Your task to perform on an android device: toggle priority inbox in the gmail app Image 0: 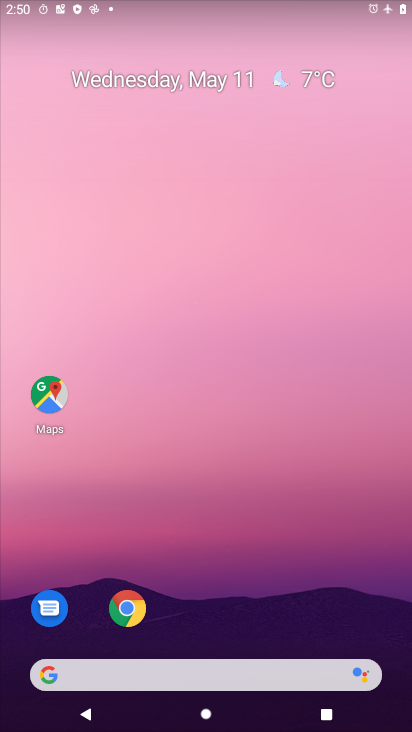
Step 0: drag from (229, 591) to (217, 60)
Your task to perform on an android device: toggle priority inbox in the gmail app Image 1: 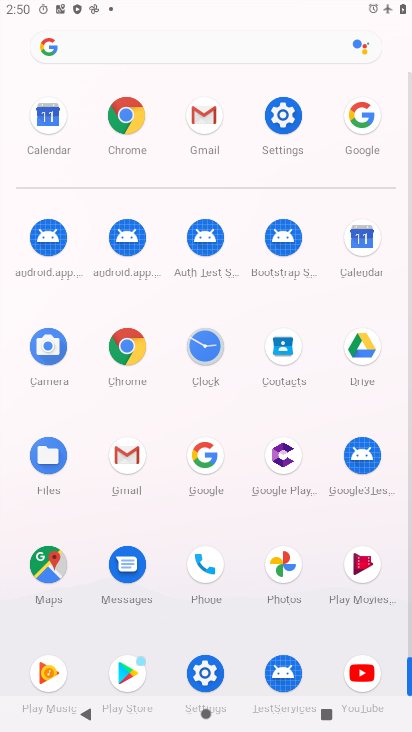
Step 1: click (206, 121)
Your task to perform on an android device: toggle priority inbox in the gmail app Image 2: 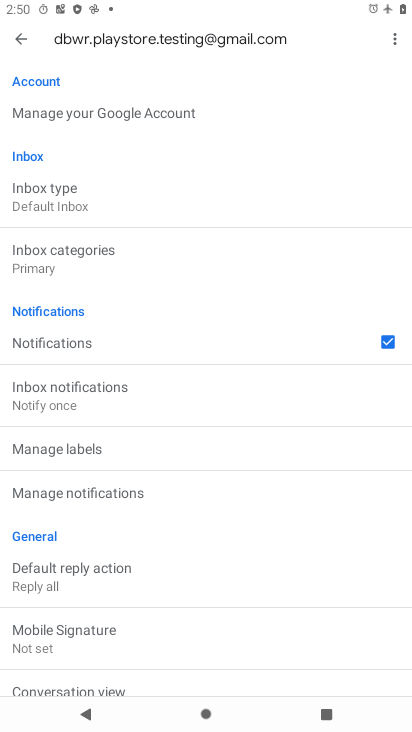
Step 2: drag from (101, 99) to (174, 441)
Your task to perform on an android device: toggle priority inbox in the gmail app Image 3: 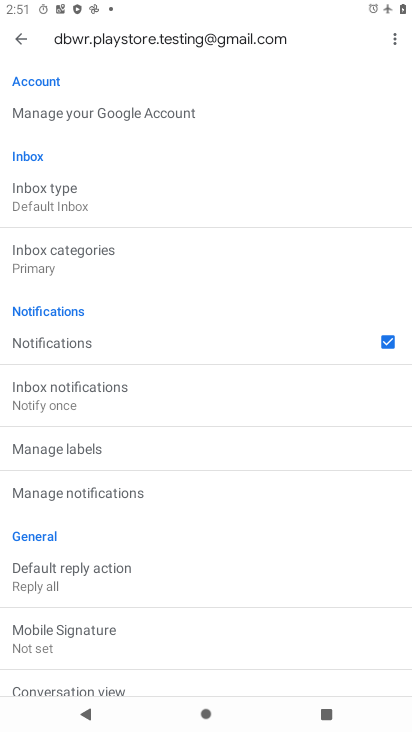
Step 3: click (58, 205)
Your task to perform on an android device: toggle priority inbox in the gmail app Image 4: 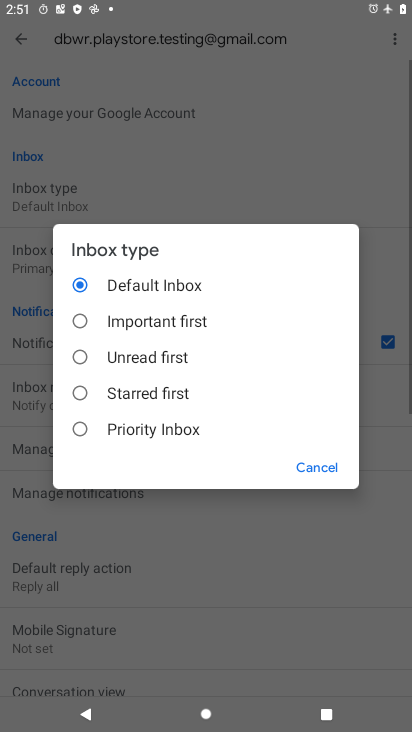
Step 4: click (79, 425)
Your task to perform on an android device: toggle priority inbox in the gmail app Image 5: 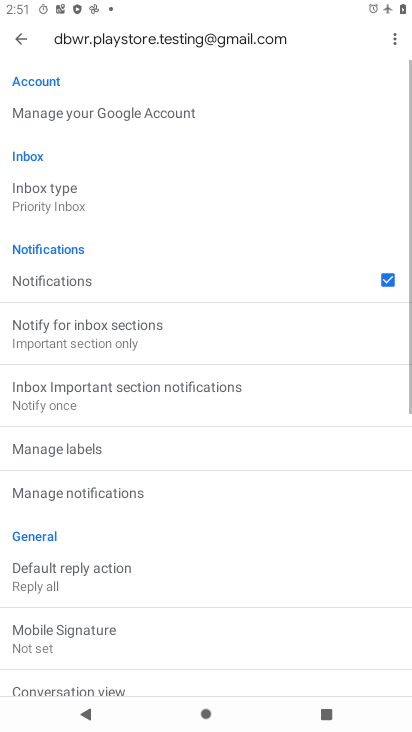
Step 5: task complete